Your task to perform on an android device: turn off location history Image 0: 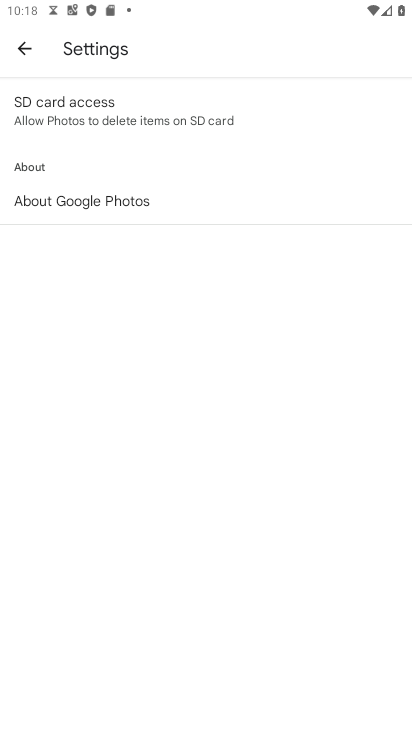
Step 0: press home button
Your task to perform on an android device: turn off location history Image 1: 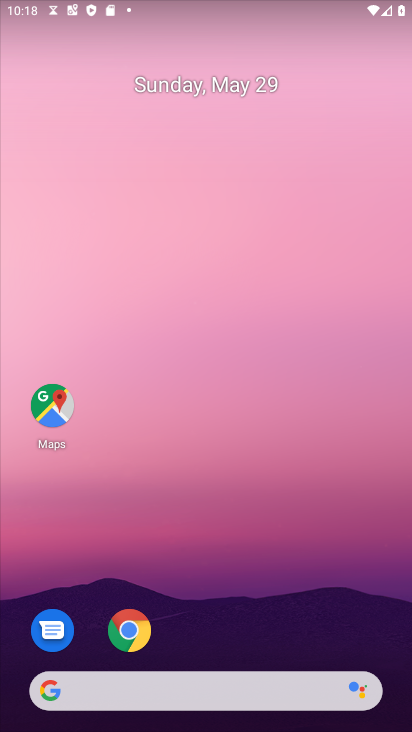
Step 1: drag from (212, 586) to (254, 62)
Your task to perform on an android device: turn off location history Image 2: 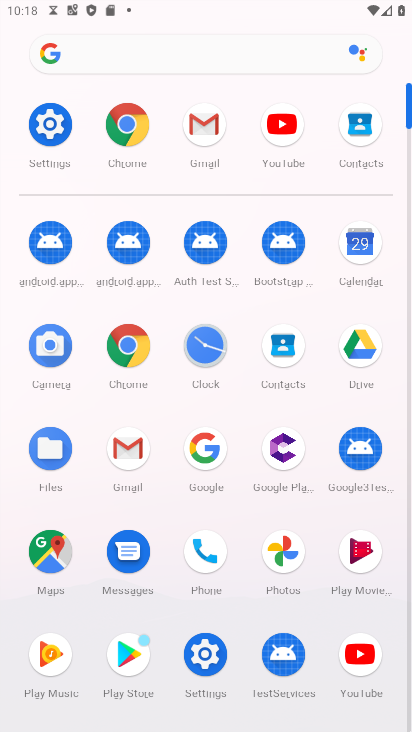
Step 2: click (43, 133)
Your task to perform on an android device: turn off location history Image 3: 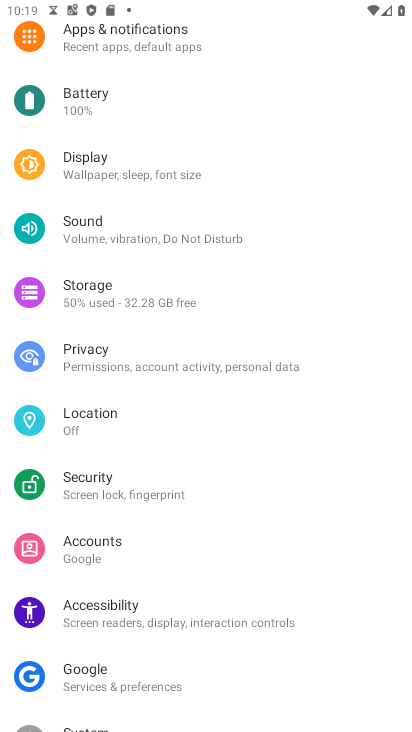
Step 3: click (78, 413)
Your task to perform on an android device: turn off location history Image 4: 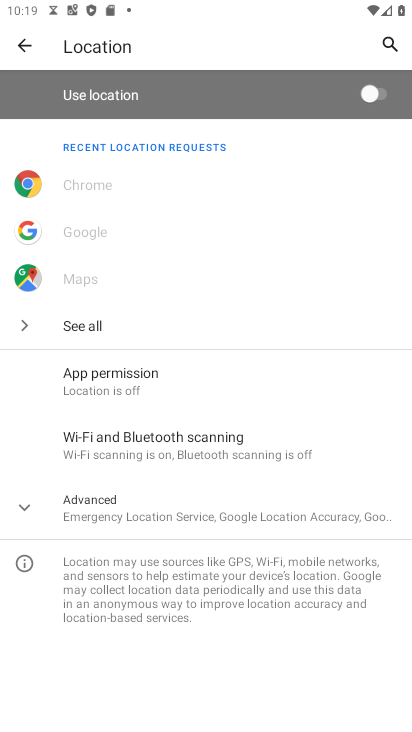
Step 4: click (164, 505)
Your task to perform on an android device: turn off location history Image 5: 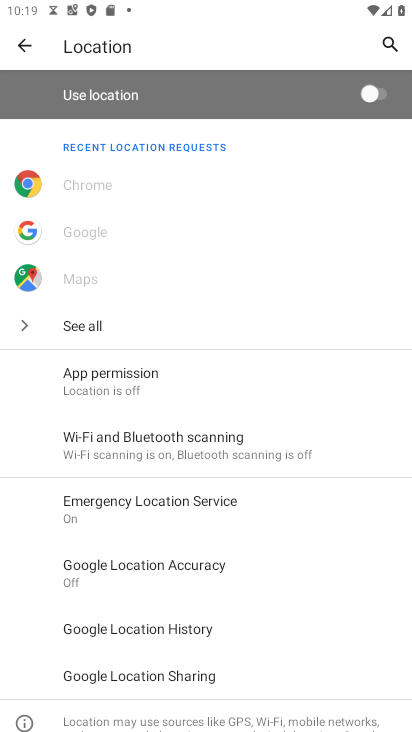
Step 5: click (160, 630)
Your task to perform on an android device: turn off location history Image 6: 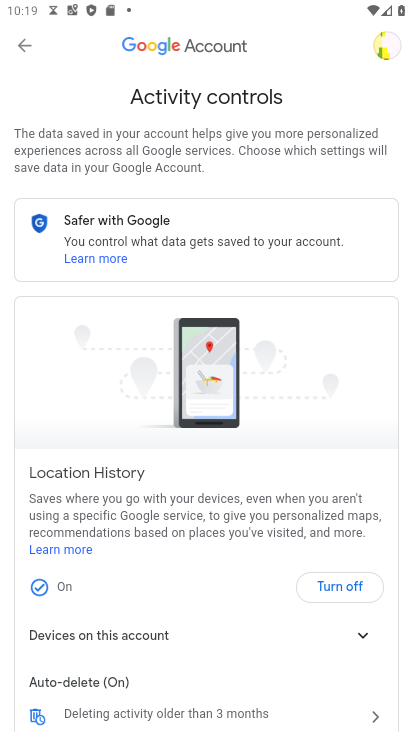
Step 6: click (325, 590)
Your task to perform on an android device: turn off location history Image 7: 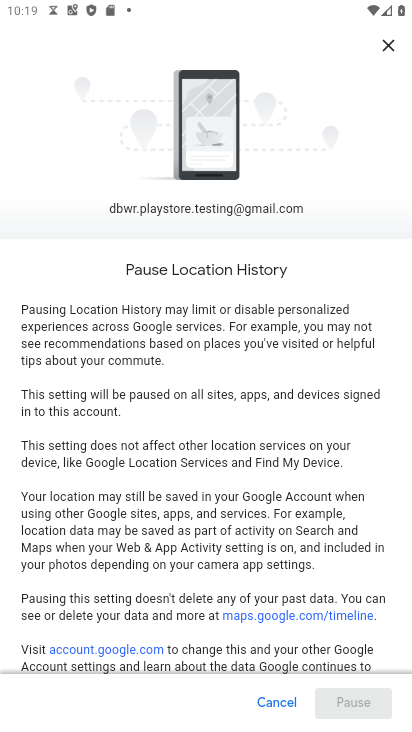
Step 7: drag from (279, 589) to (330, 152)
Your task to perform on an android device: turn off location history Image 8: 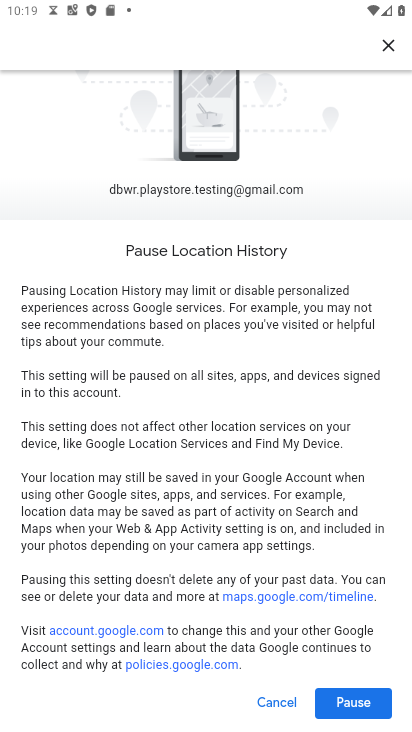
Step 8: click (354, 703)
Your task to perform on an android device: turn off location history Image 9: 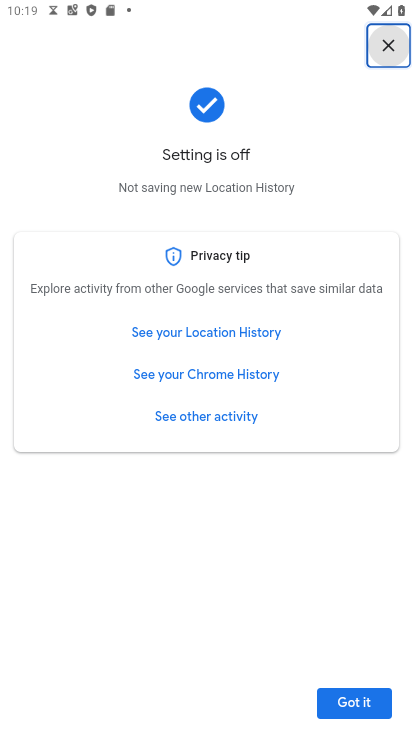
Step 9: click (355, 703)
Your task to perform on an android device: turn off location history Image 10: 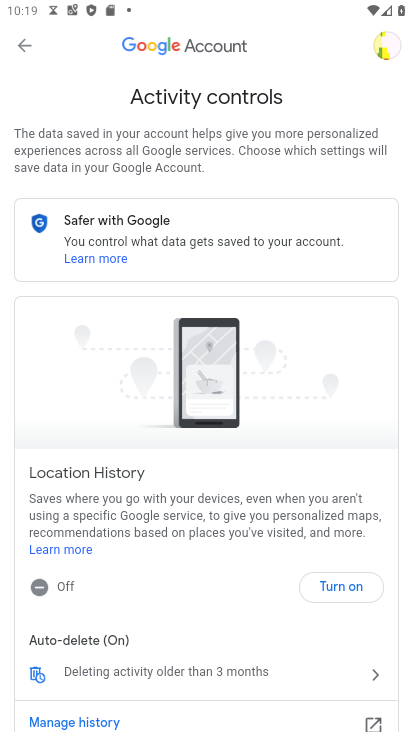
Step 10: task complete